Your task to perform on an android device: What is the recent news? Image 0: 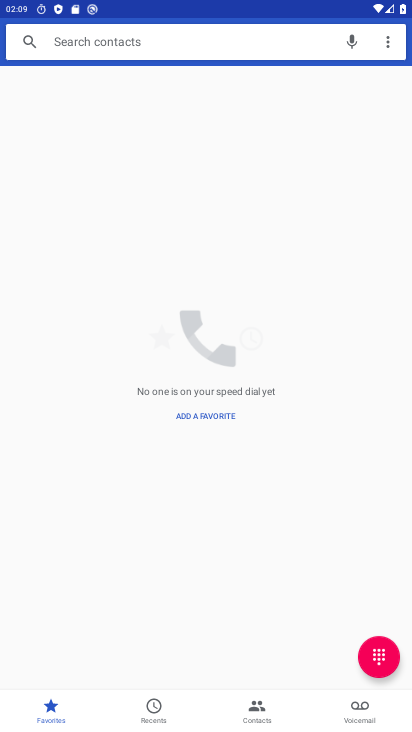
Step 0: press back button
Your task to perform on an android device: What is the recent news? Image 1: 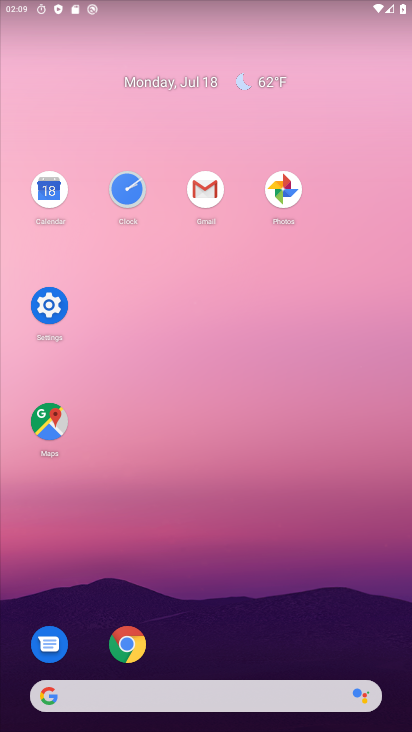
Step 1: click (135, 640)
Your task to perform on an android device: What is the recent news? Image 2: 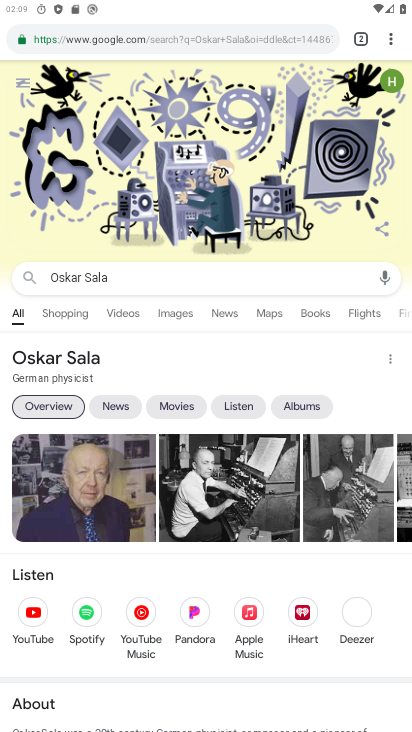
Step 2: click (364, 33)
Your task to perform on an android device: What is the recent news? Image 3: 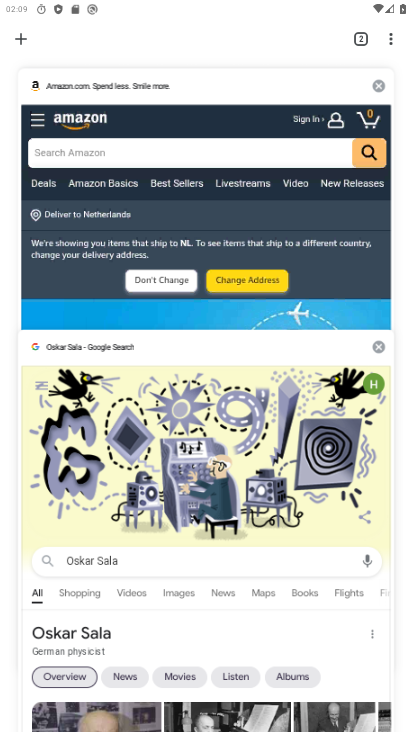
Step 3: click (28, 38)
Your task to perform on an android device: What is the recent news? Image 4: 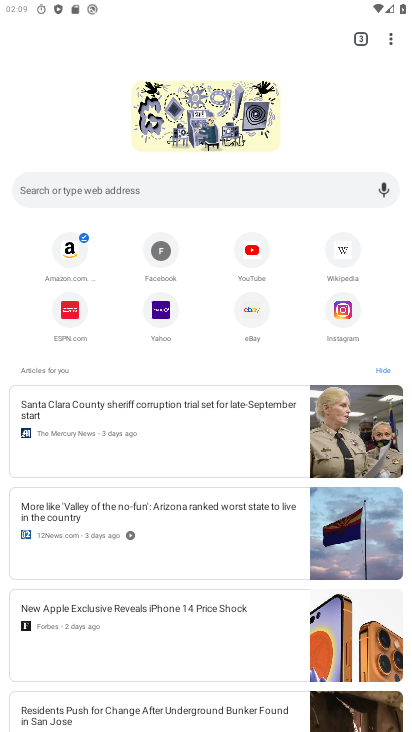
Step 4: click (119, 196)
Your task to perform on an android device: What is the recent news? Image 5: 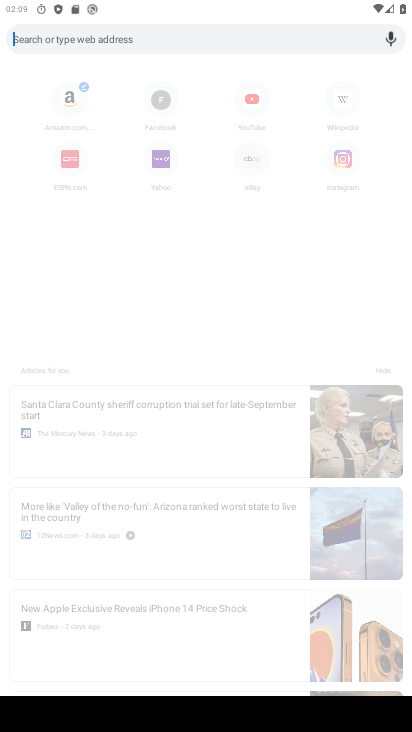
Step 5: type "recent news"
Your task to perform on an android device: What is the recent news? Image 6: 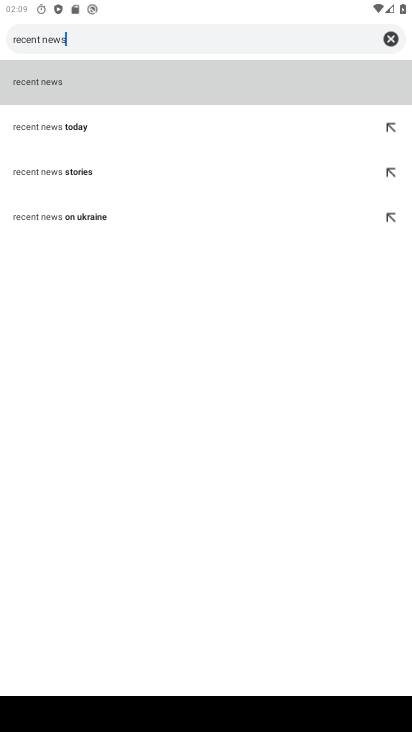
Step 6: click (108, 81)
Your task to perform on an android device: What is the recent news? Image 7: 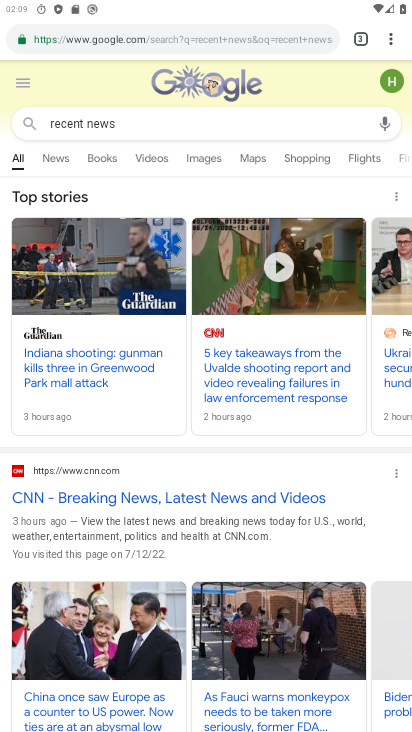
Step 7: task complete